Your task to perform on an android device: Open settings Image 0: 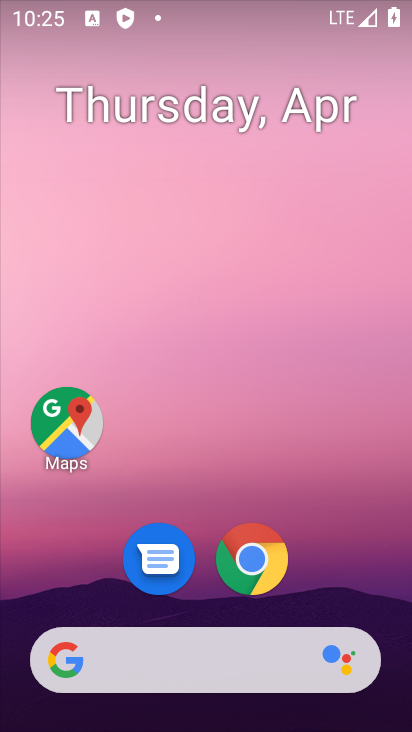
Step 0: drag from (203, 719) to (101, 99)
Your task to perform on an android device: Open settings Image 1: 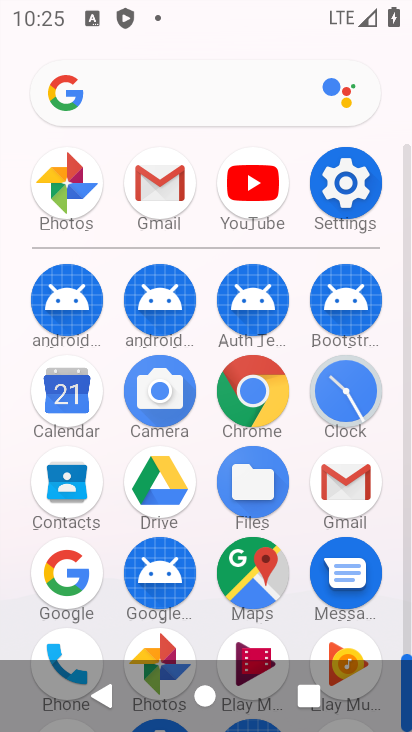
Step 1: click (343, 177)
Your task to perform on an android device: Open settings Image 2: 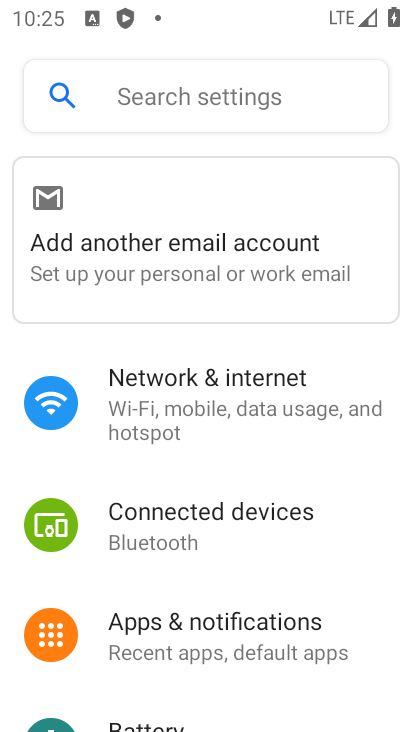
Step 2: task complete